Your task to perform on an android device: turn off javascript in the chrome app Image 0: 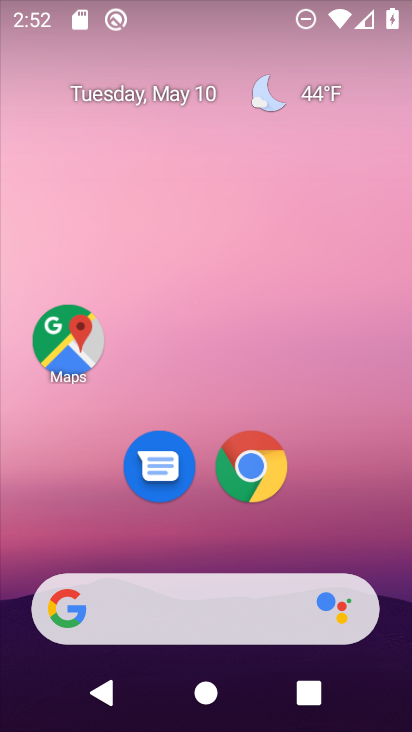
Step 0: click (264, 467)
Your task to perform on an android device: turn off javascript in the chrome app Image 1: 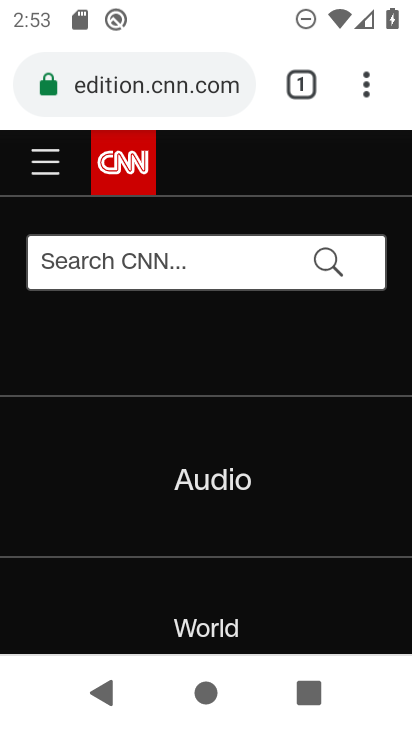
Step 1: click (368, 93)
Your task to perform on an android device: turn off javascript in the chrome app Image 2: 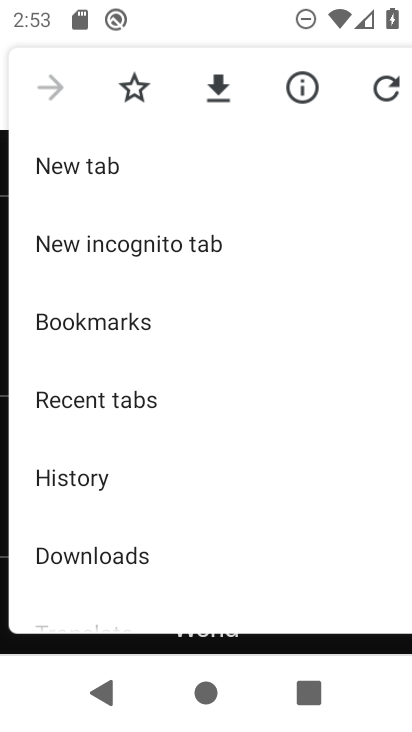
Step 2: drag from (131, 554) to (169, 191)
Your task to perform on an android device: turn off javascript in the chrome app Image 3: 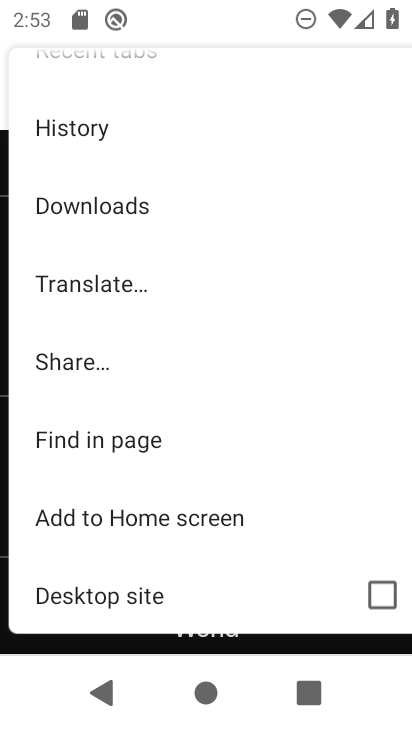
Step 3: drag from (130, 582) to (193, 151)
Your task to perform on an android device: turn off javascript in the chrome app Image 4: 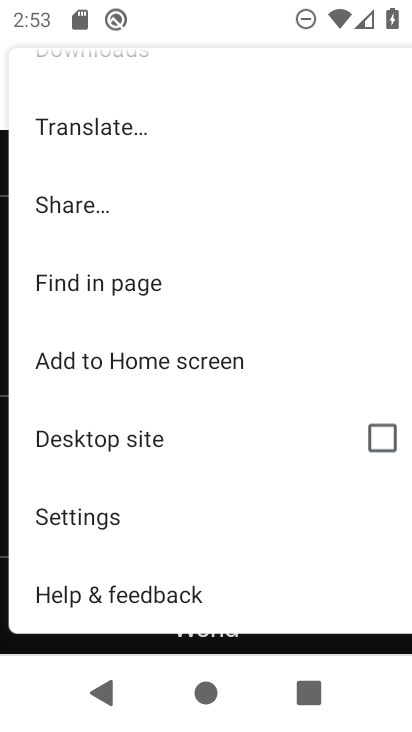
Step 4: click (134, 521)
Your task to perform on an android device: turn off javascript in the chrome app Image 5: 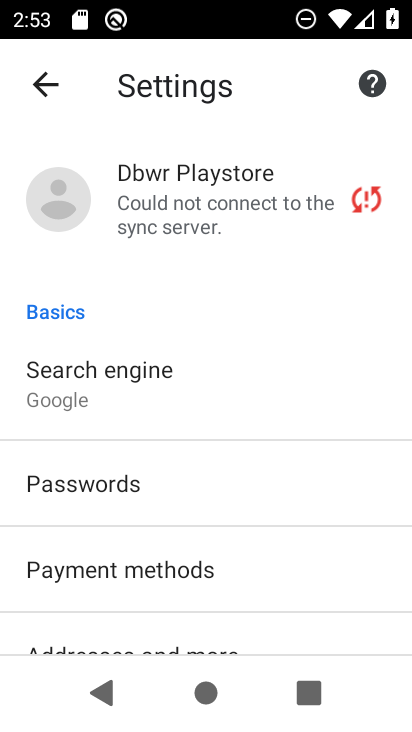
Step 5: drag from (176, 621) to (220, 231)
Your task to perform on an android device: turn off javascript in the chrome app Image 6: 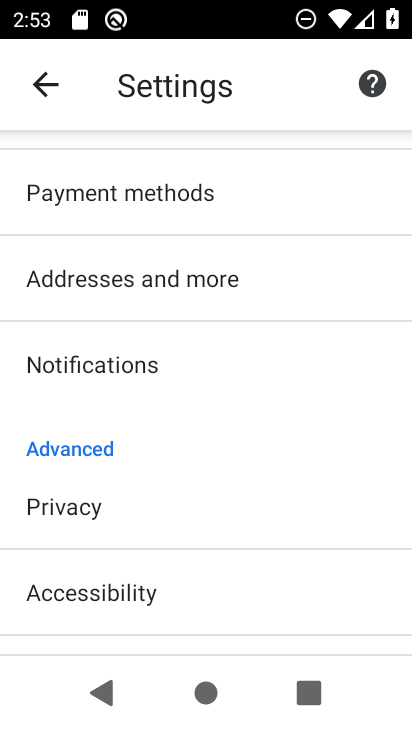
Step 6: drag from (206, 570) to (234, 230)
Your task to perform on an android device: turn off javascript in the chrome app Image 7: 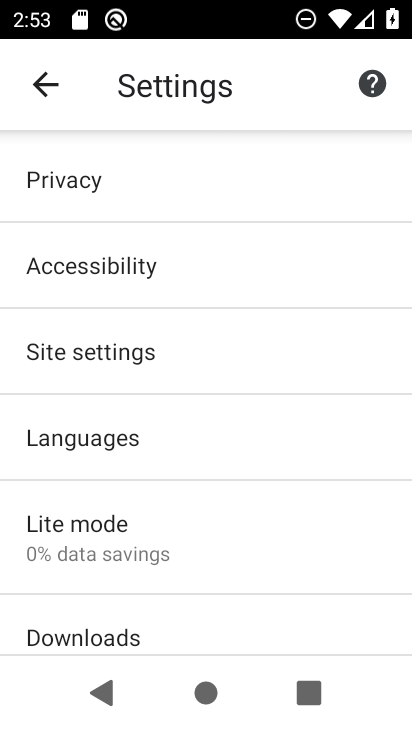
Step 7: drag from (176, 513) to (207, 194)
Your task to perform on an android device: turn off javascript in the chrome app Image 8: 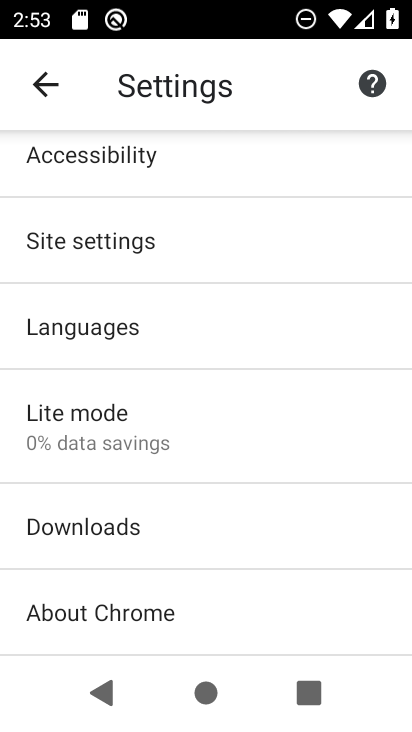
Step 8: click (161, 228)
Your task to perform on an android device: turn off javascript in the chrome app Image 9: 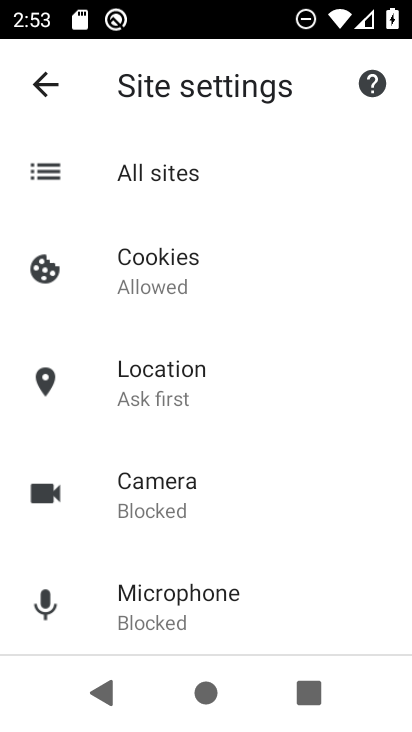
Step 9: drag from (180, 602) to (274, 251)
Your task to perform on an android device: turn off javascript in the chrome app Image 10: 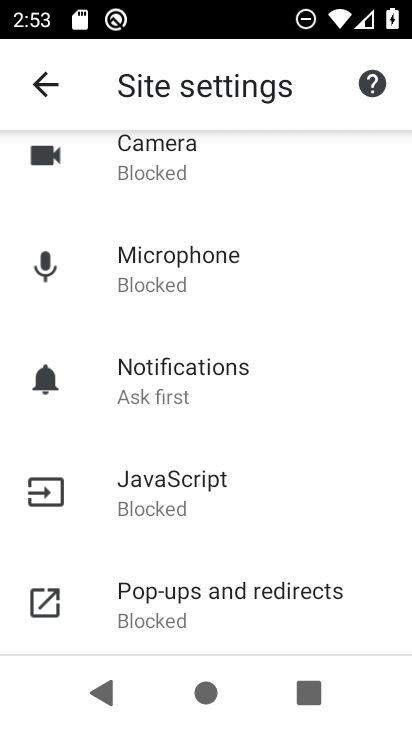
Step 10: click (158, 508)
Your task to perform on an android device: turn off javascript in the chrome app Image 11: 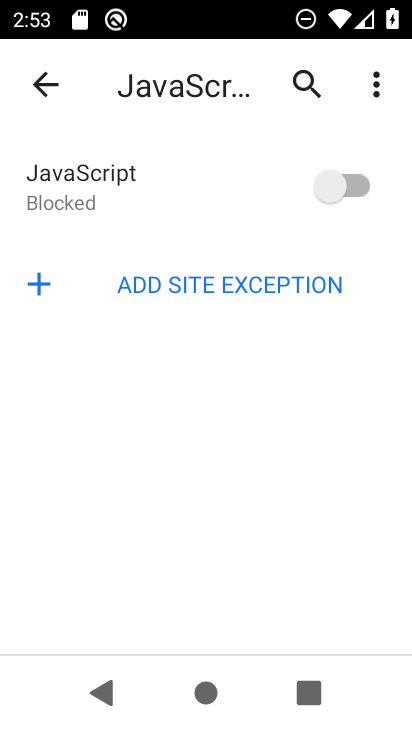
Step 11: task complete